Your task to perform on an android device: move a message to another label in the gmail app Image 0: 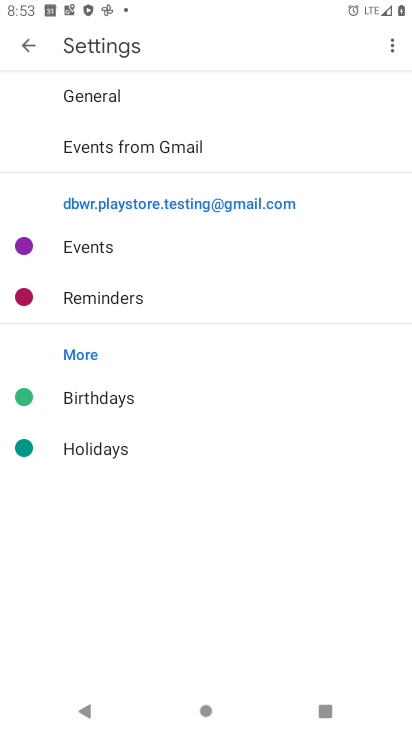
Step 0: press home button
Your task to perform on an android device: move a message to another label in the gmail app Image 1: 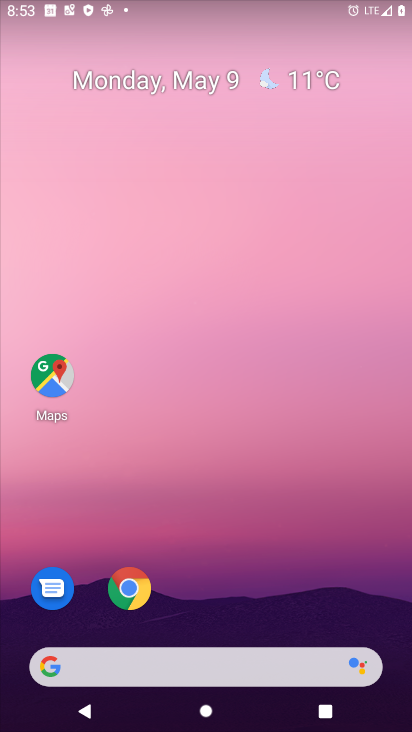
Step 1: drag from (295, 606) to (164, 83)
Your task to perform on an android device: move a message to another label in the gmail app Image 2: 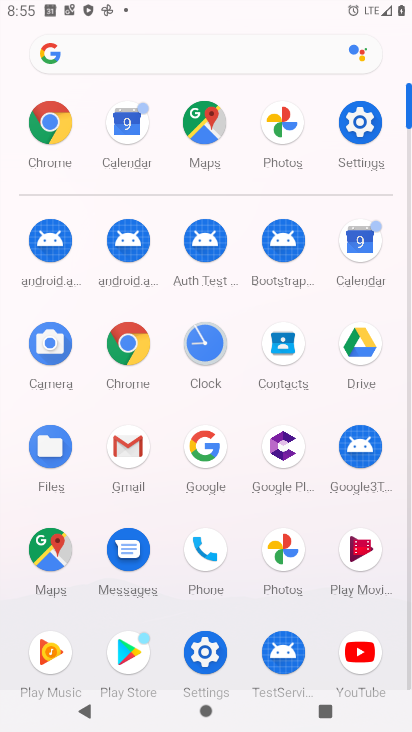
Step 2: click (137, 447)
Your task to perform on an android device: move a message to another label in the gmail app Image 3: 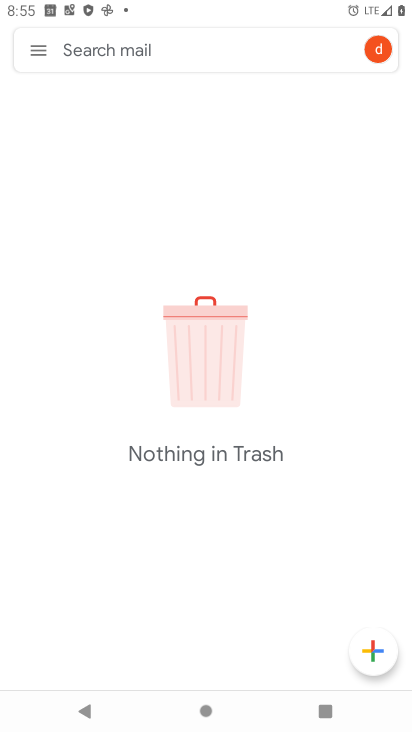
Step 3: click (31, 40)
Your task to perform on an android device: move a message to another label in the gmail app Image 4: 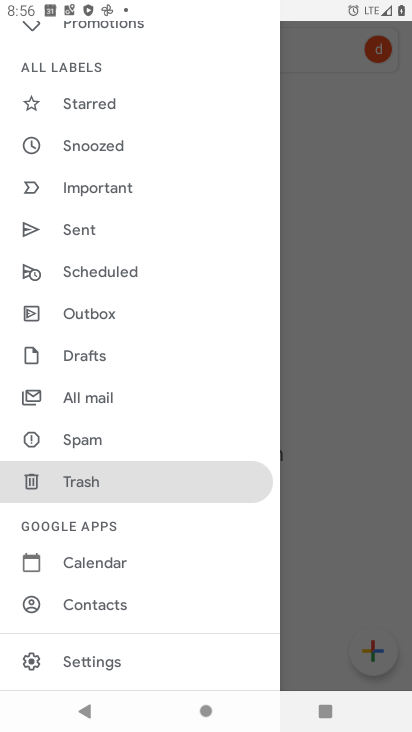
Step 4: click (297, 193)
Your task to perform on an android device: move a message to another label in the gmail app Image 5: 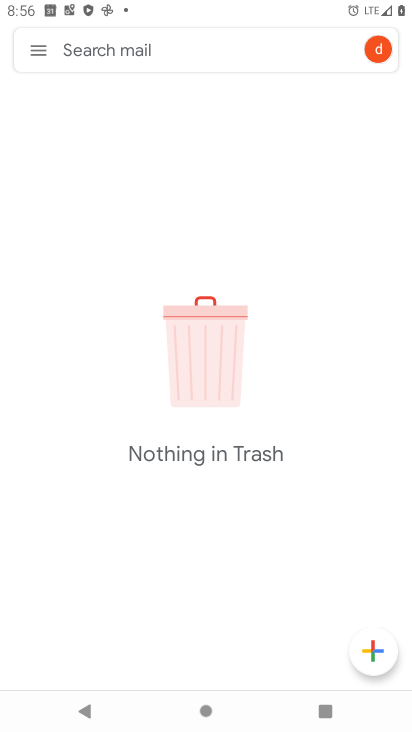
Step 5: task complete